Your task to perform on an android device: turn vacation reply on in the gmail app Image 0: 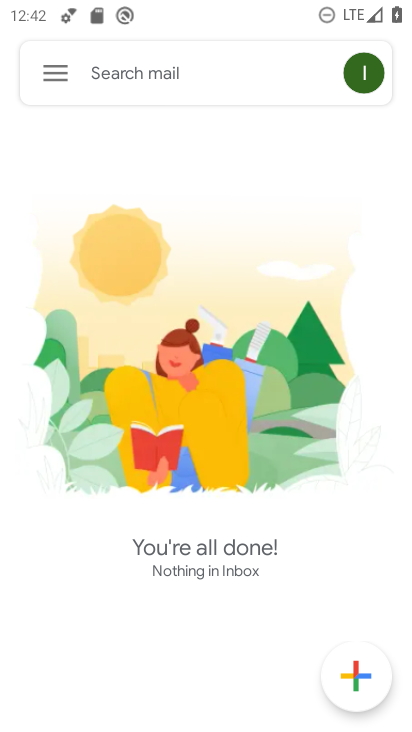
Step 0: press home button
Your task to perform on an android device: turn vacation reply on in the gmail app Image 1: 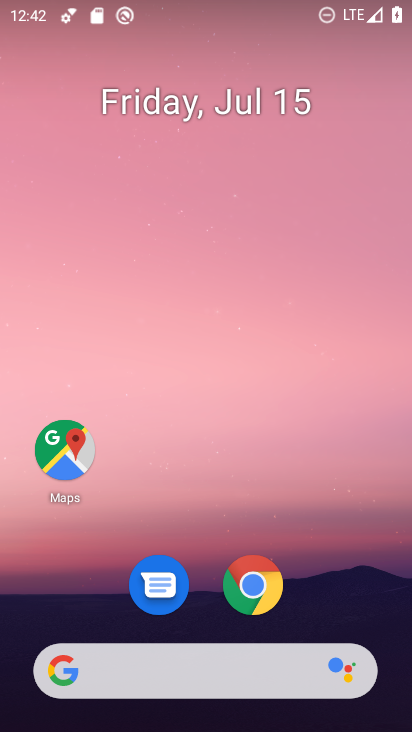
Step 1: drag from (329, 592) to (318, 65)
Your task to perform on an android device: turn vacation reply on in the gmail app Image 2: 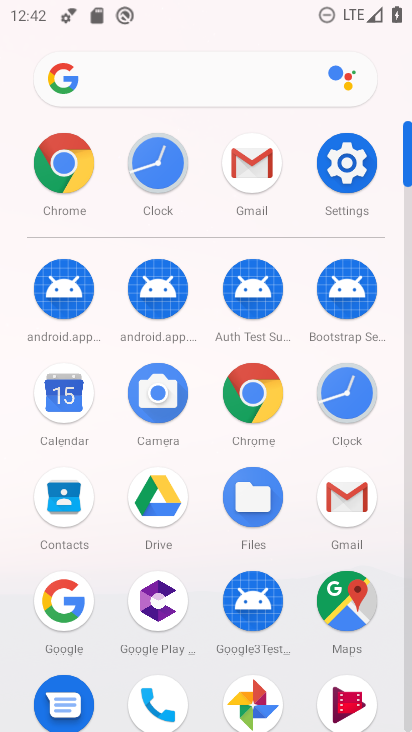
Step 2: click (257, 170)
Your task to perform on an android device: turn vacation reply on in the gmail app Image 3: 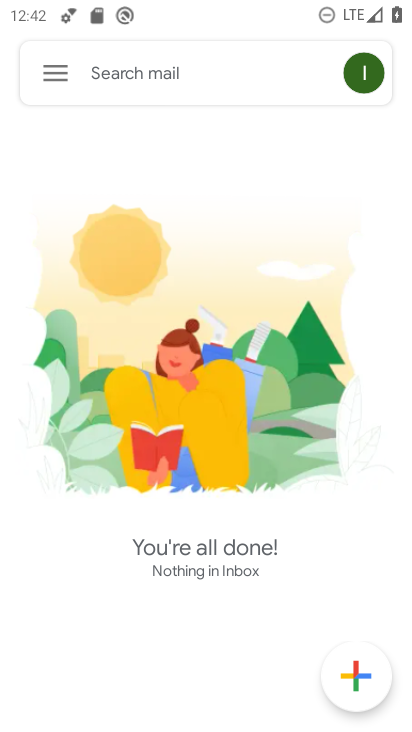
Step 3: click (55, 72)
Your task to perform on an android device: turn vacation reply on in the gmail app Image 4: 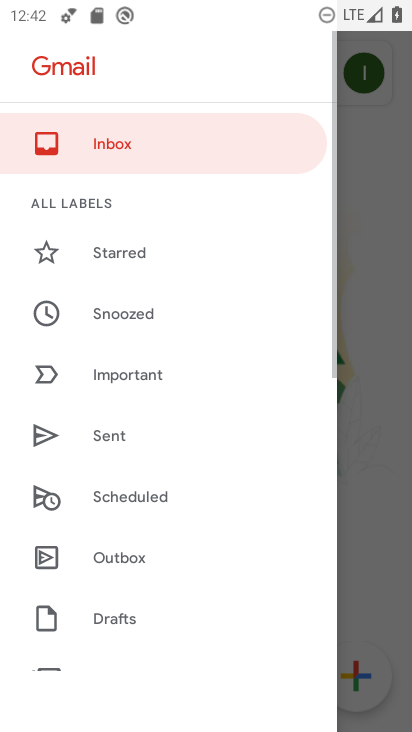
Step 4: drag from (188, 488) to (277, 76)
Your task to perform on an android device: turn vacation reply on in the gmail app Image 5: 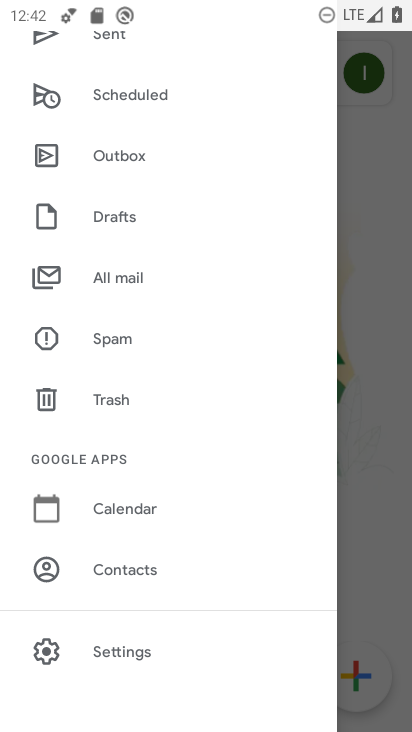
Step 5: click (149, 642)
Your task to perform on an android device: turn vacation reply on in the gmail app Image 6: 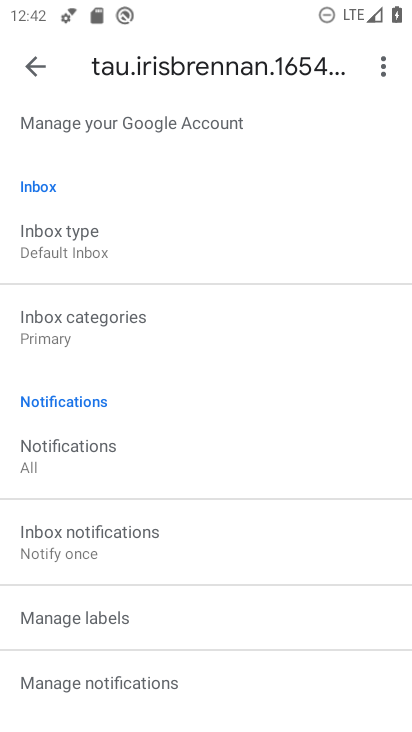
Step 6: drag from (184, 576) to (246, 17)
Your task to perform on an android device: turn vacation reply on in the gmail app Image 7: 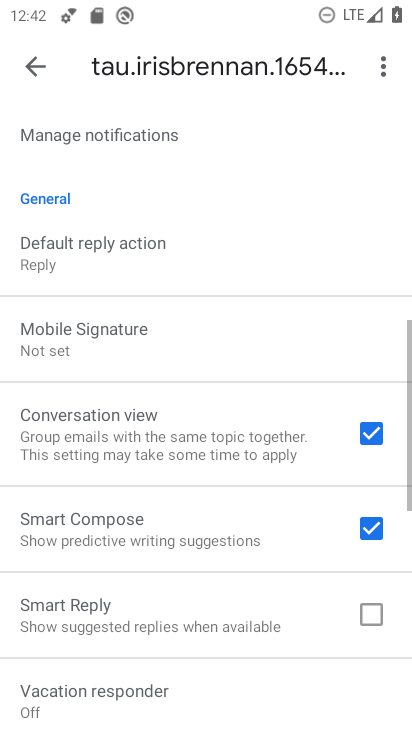
Step 7: drag from (182, 613) to (223, 266)
Your task to perform on an android device: turn vacation reply on in the gmail app Image 8: 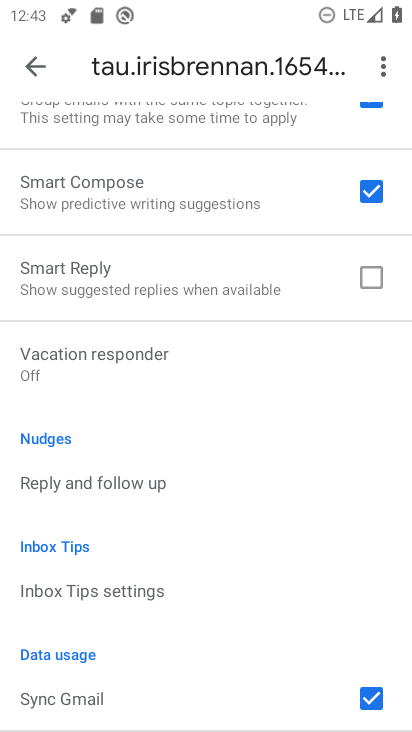
Step 8: click (203, 366)
Your task to perform on an android device: turn vacation reply on in the gmail app Image 9: 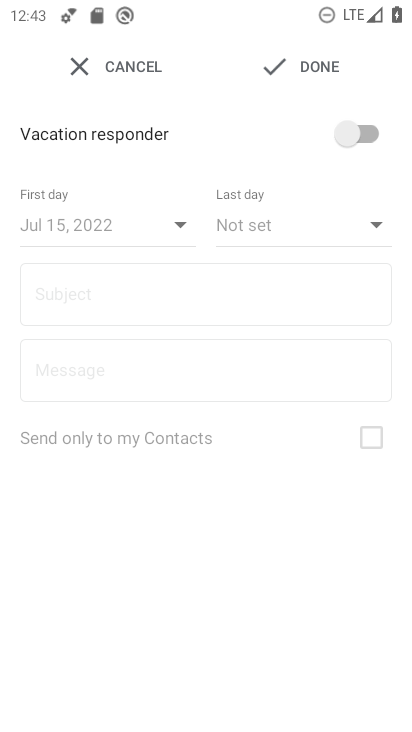
Step 9: click (360, 133)
Your task to perform on an android device: turn vacation reply on in the gmail app Image 10: 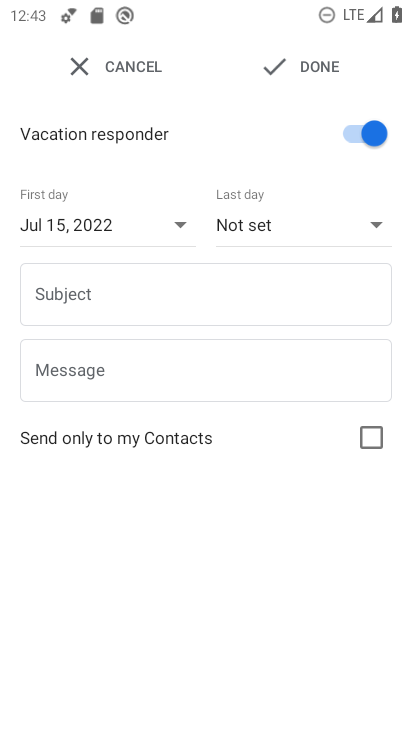
Step 10: task complete